Your task to perform on an android device: change keyboard looks Image 0: 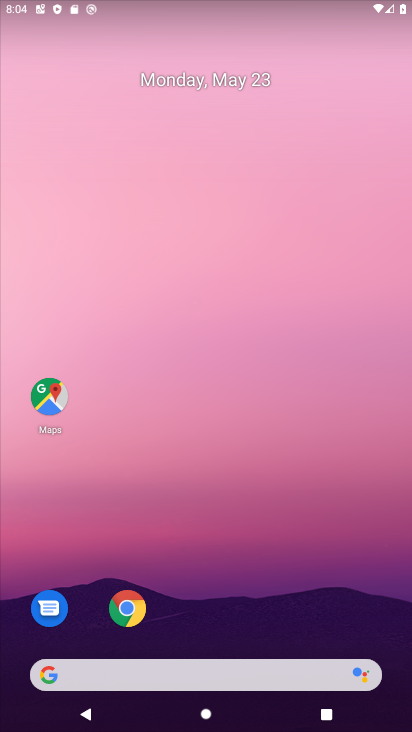
Step 0: drag from (187, 674) to (142, 45)
Your task to perform on an android device: change keyboard looks Image 1: 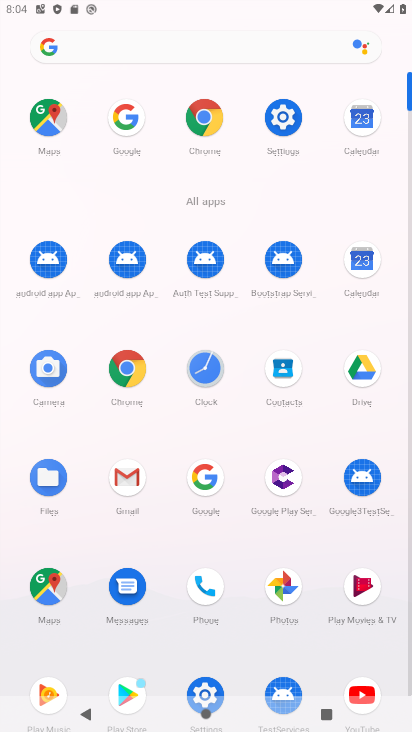
Step 1: click (203, 680)
Your task to perform on an android device: change keyboard looks Image 2: 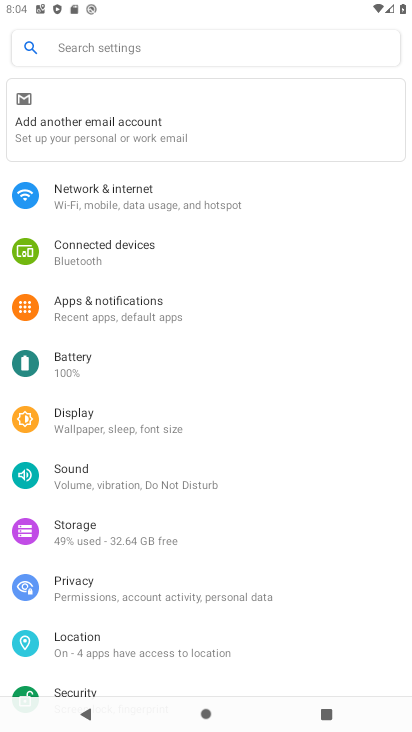
Step 2: drag from (159, 607) to (136, 74)
Your task to perform on an android device: change keyboard looks Image 3: 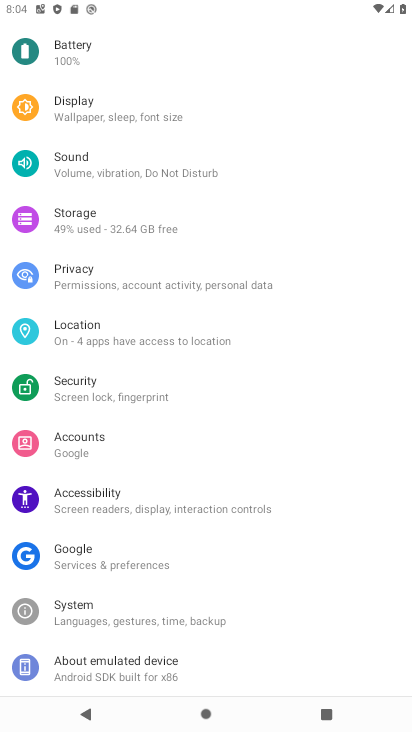
Step 3: click (128, 622)
Your task to perform on an android device: change keyboard looks Image 4: 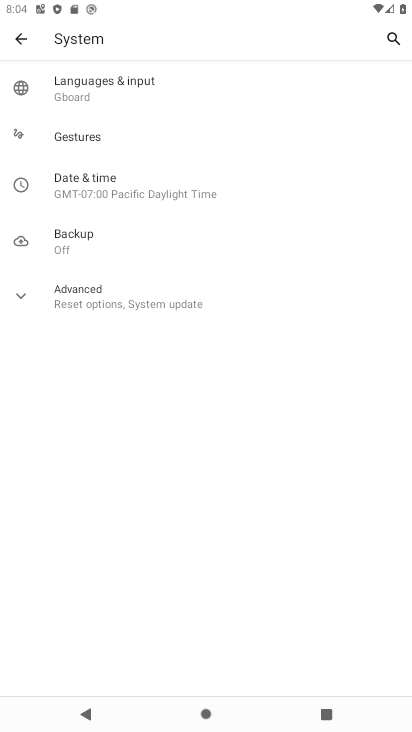
Step 4: click (117, 81)
Your task to perform on an android device: change keyboard looks Image 5: 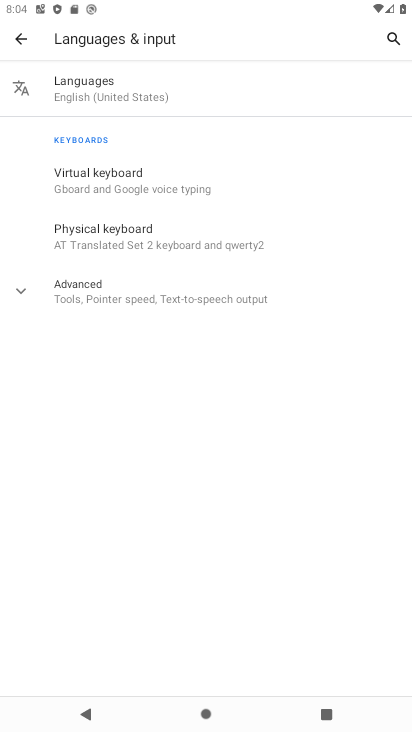
Step 5: click (118, 171)
Your task to perform on an android device: change keyboard looks Image 6: 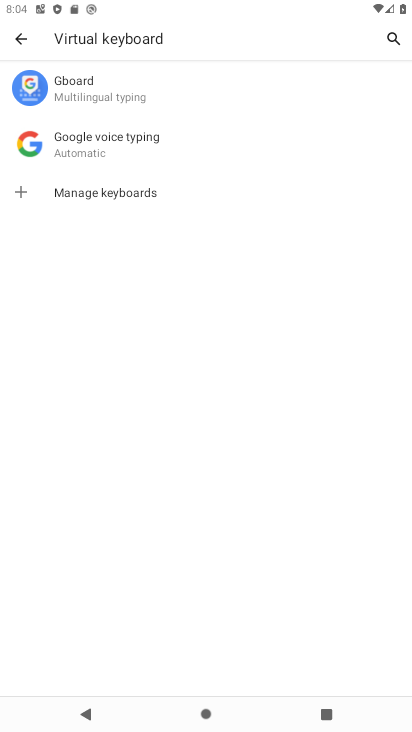
Step 6: click (70, 82)
Your task to perform on an android device: change keyboard looks Image 7: 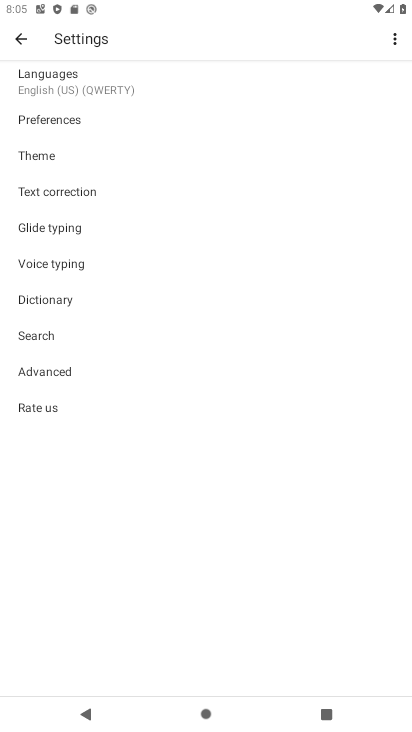
Step 7: click (43, 164)
Your task to perform on an android device: change keyboard looks Image 8: 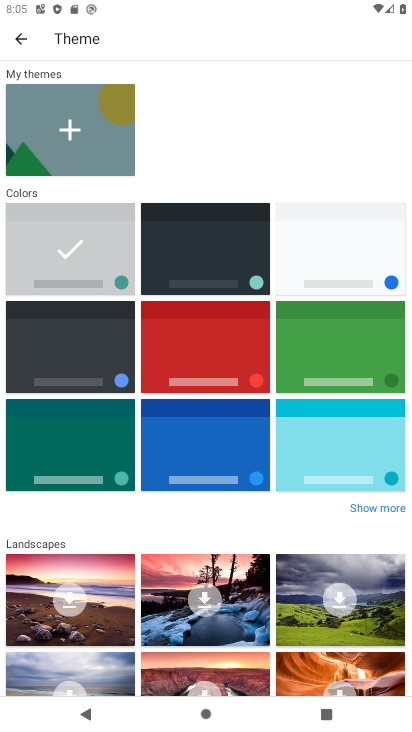
Step 8: click (149, 463)
Your task to perform on an android device: change keyboard looks Image 9: 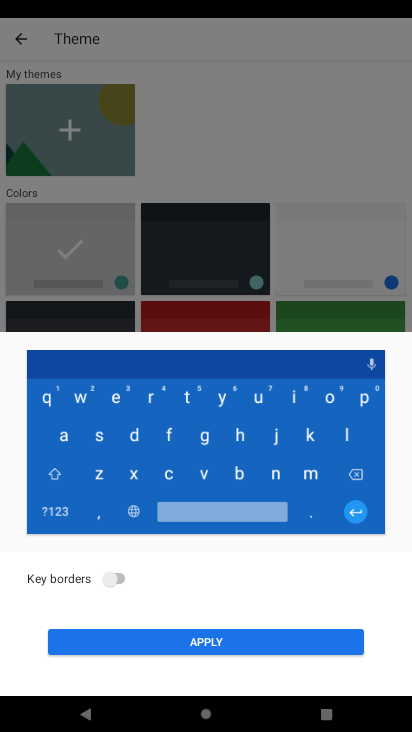
Step 9: click (201, 643)
Your task to perform on an android device: change keyboard looks Image 10: 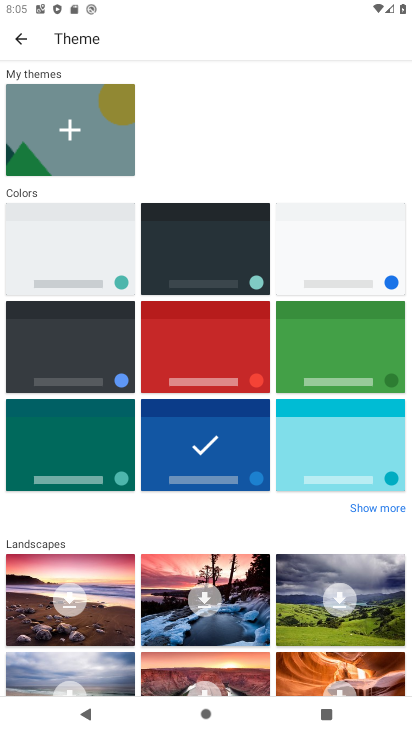
Step 10: task complete